Your task to perform on an android device: Go to accessibility settings Image 0: 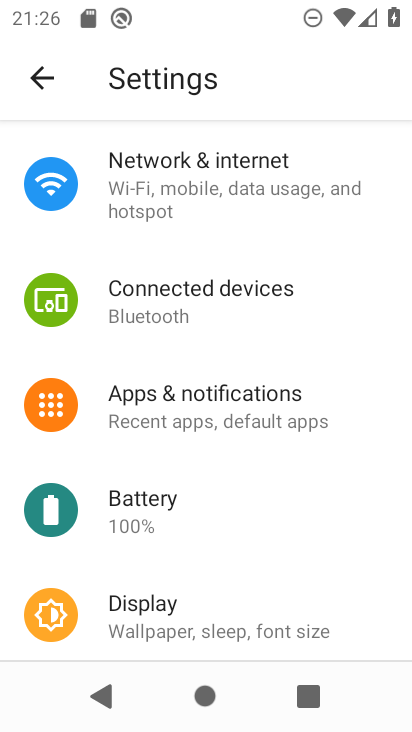
Step 0: drag from (346, 563) to (371, 348)
Your task to perform on an android device: Go to accessibility settings Image 1: 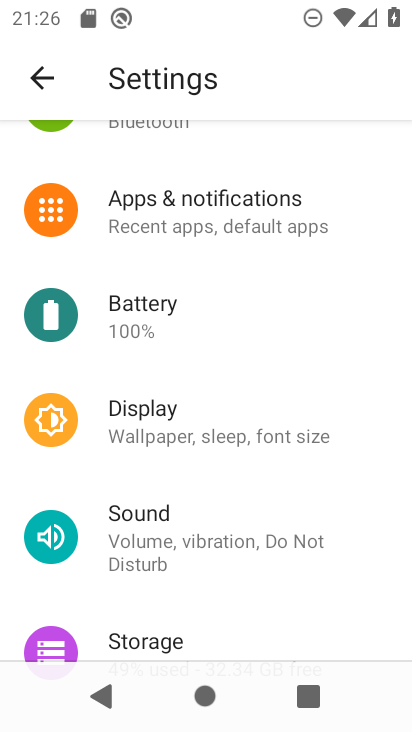
Step 1: drag from (370, 452) to (372, 322)
Your task to perform on an android device: Go to accessibility settings Image 2: 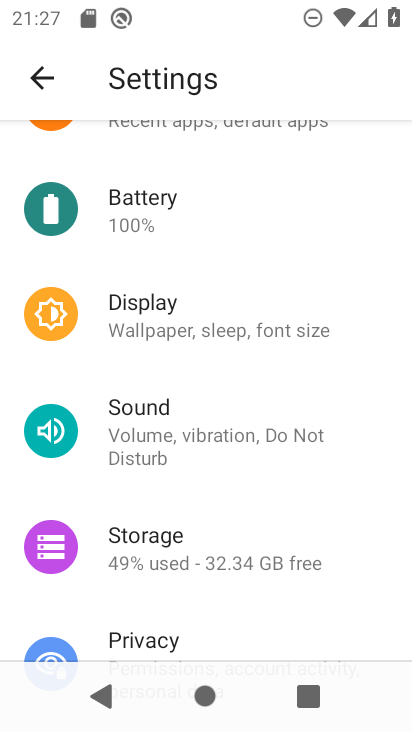
Step 2: drag from (355, 452) to (358, 342)
Your task to perform on an android device: Go to accessibility settings Image 3: 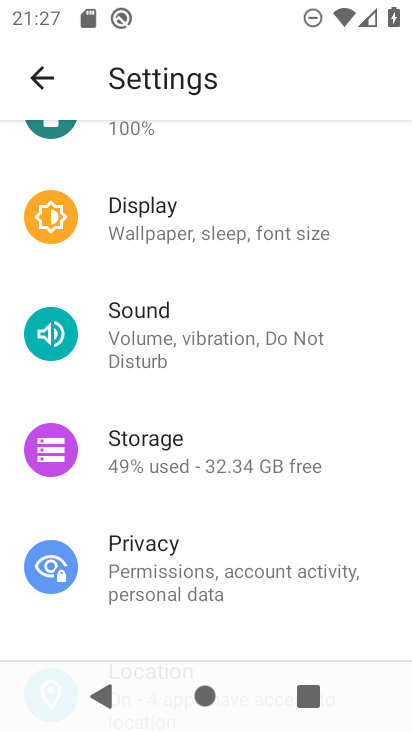
Step 3: drag from (366, 461) to (366, 289)
Your task to perform on an android device: Go to accessibility settings Image 4: 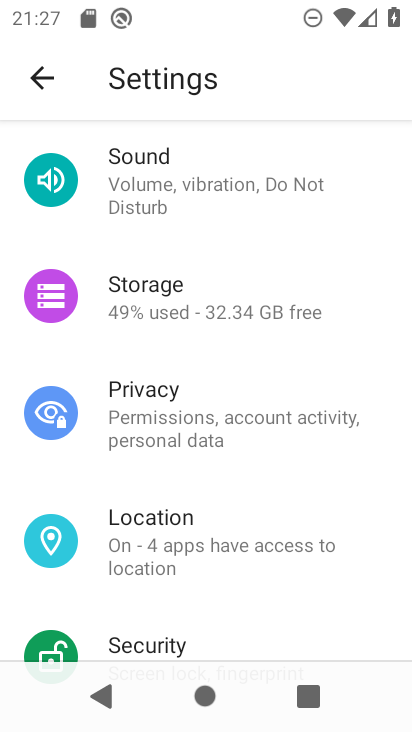
Step 4: drag from (378, 499) to (381, 342)
Your task to perform on an android device: Go to accessibility settings Image 5: 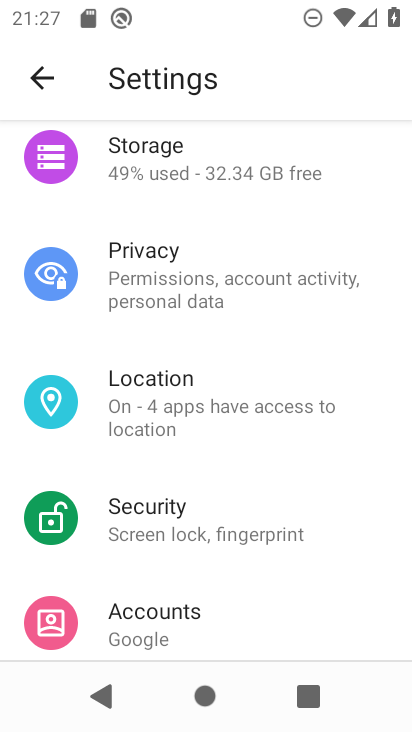
Step 5: drag from (367, 492) to (368, 376)
Your task to perform on an android device: Go to accessibility settings Image 6: 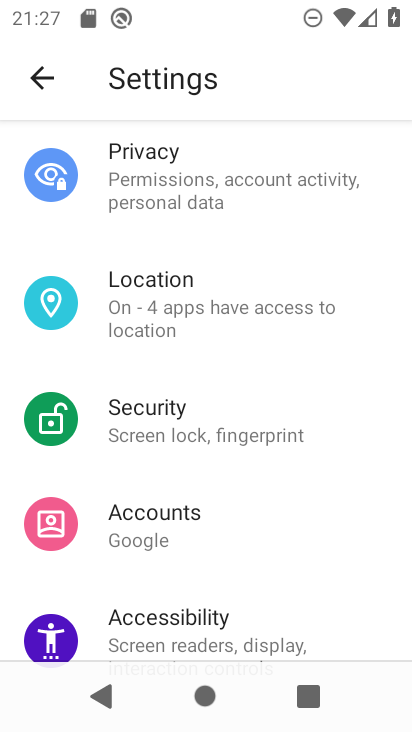
Step 6: drag from (341, 552) to (368, 382)
Your task to perform on an android device: Go to accessibility settings Image 7: 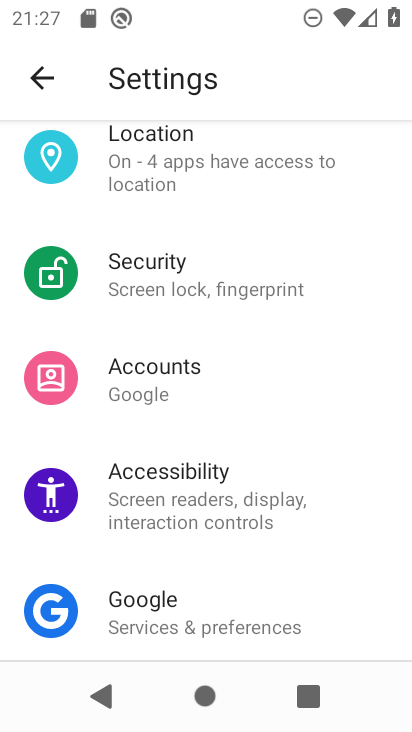
Step 7: click (314, 518)
Your task to perform on an android device: Go to accessibility settings Image 8: 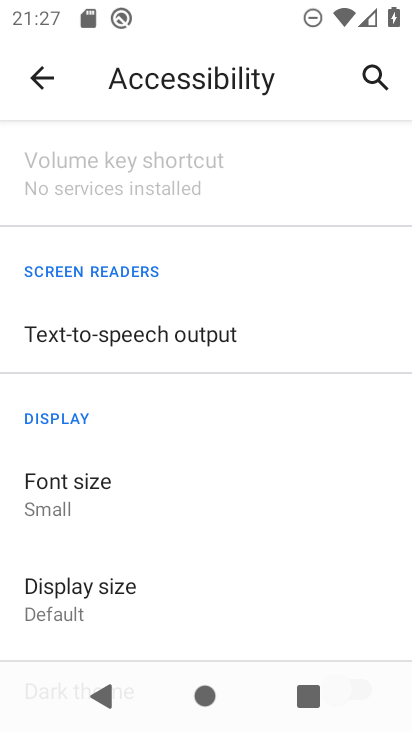
Step 8: task complete